Your task to perform on an android device: Open Chrome and go to settings Image 0: 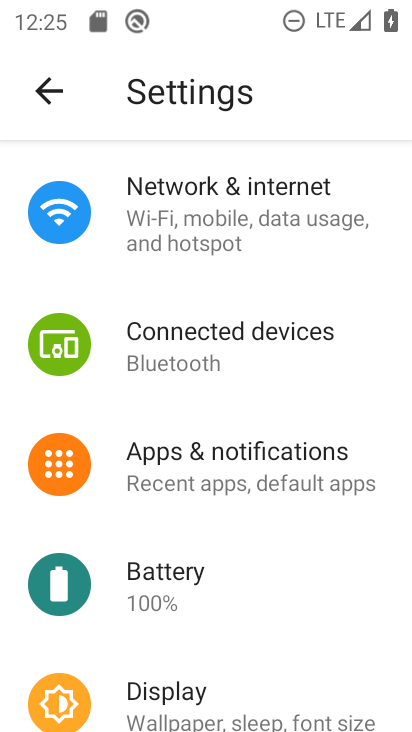
Step 0: press home button
Your task to perform on an android device: Open Chrome and go to settings Image 1: 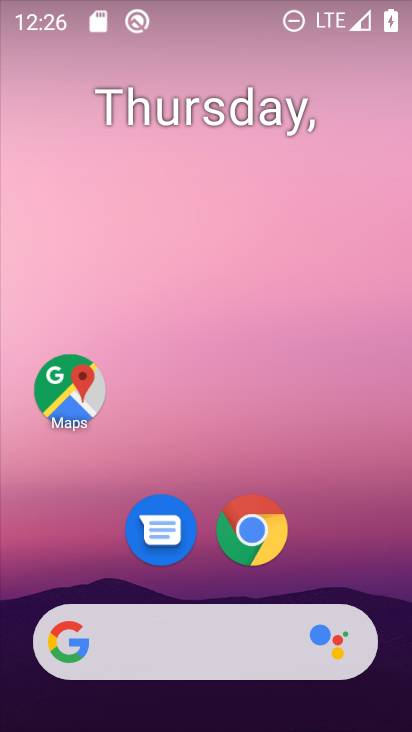
Step 1: click (255, 525)
Your task to perform on an android device: Open Chrome and go to settings Image 2: 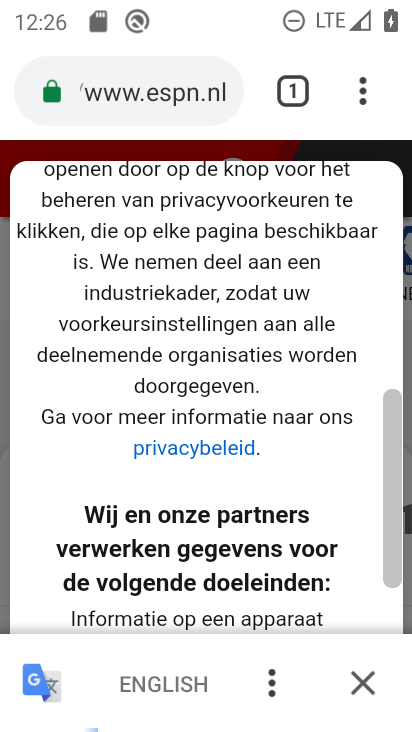
Step 2: task complete